Your task to perform on an android device: Go to privacy settings Image 0: 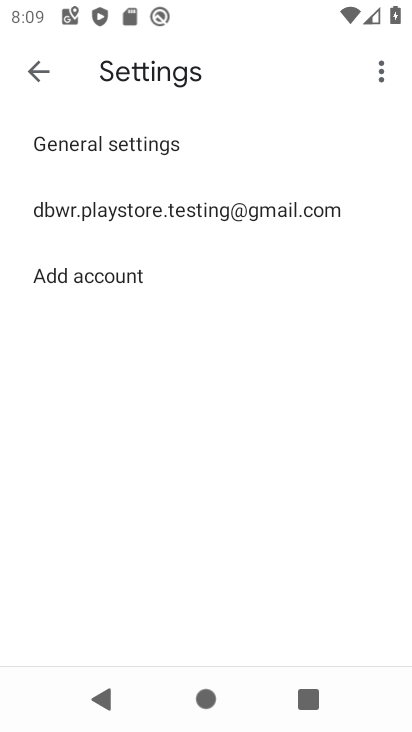
Step 0: press home button
Your task to perform on an android device: Go to privacy settings Image 1: 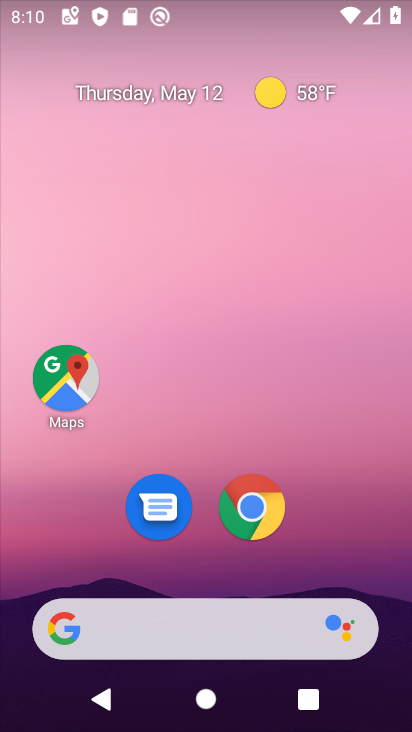
Step 1: click (242, 501)
Your task to perform on an android device: Go to privacy settings Image 2: 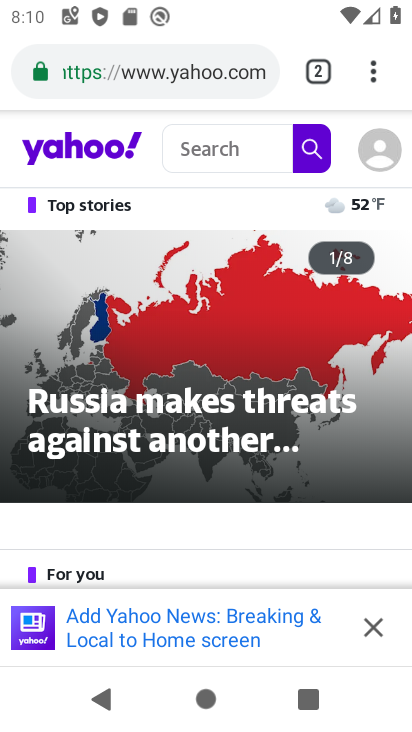
Step 2: drag from (370, 77) to (136, 511)
Your task to perform on an android device: Go to privacy settings Image 3: 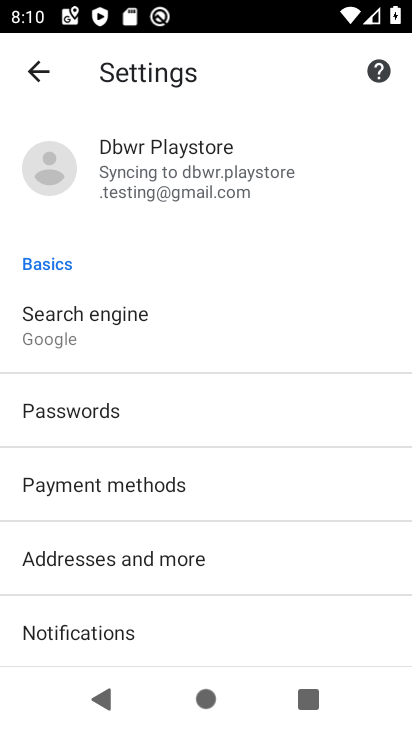
Step 3: drag from (149, 528) to (157, 311)
Your task to perform on an android device: Go to privacy settings Image 4: 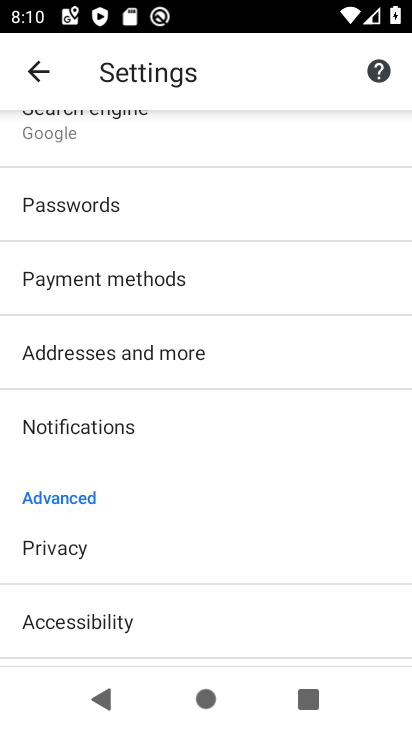
Step 4: click (65, 553)
Your task to perform on an android device: Go to privacy settings Image 5: 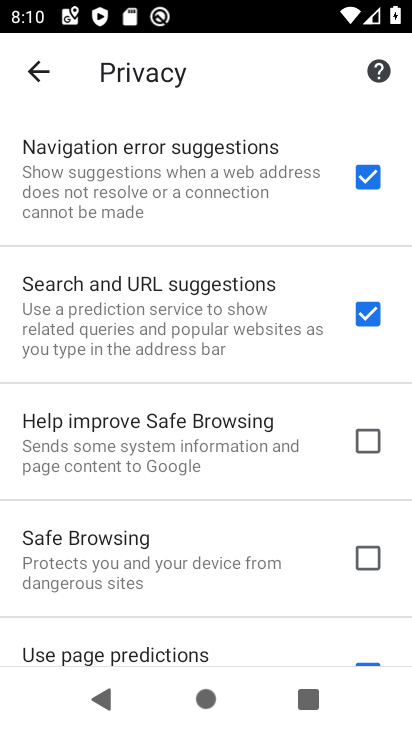
Step 5: task complete